Your task to perform on an android device: Go to wifi settings Image 0: 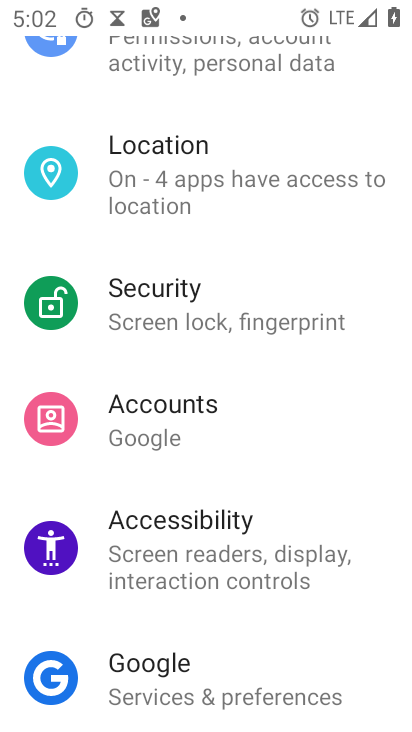
Step 0: drag from (310, 114) to (336, 666)
Your task to perform on an android device: Go to wifi settings Image 1: 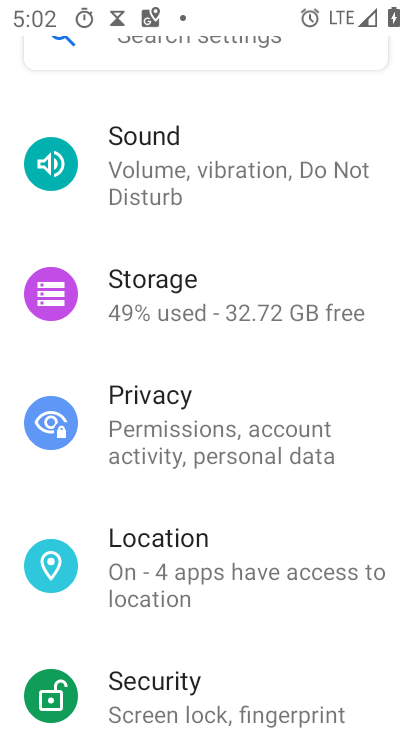
Step 1: drag from (302, 90) to (296, 522)
Your task to perform on an android device: Go to wifi settings Image 2: 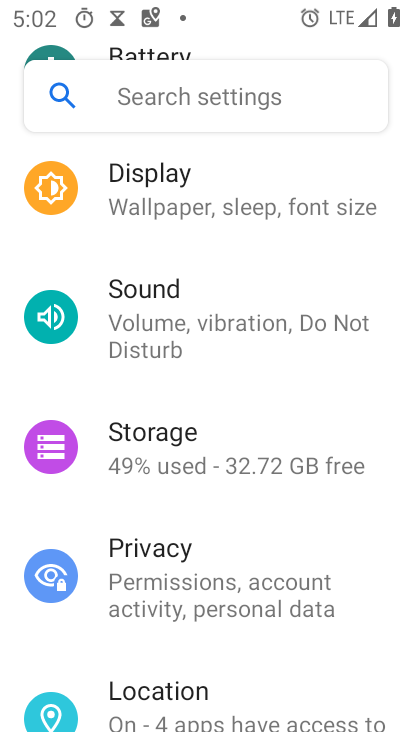
Step 2: drag from (247, 142) to (323, 699)
Your task to perform on an android device: Go to wifi settings Image 3: 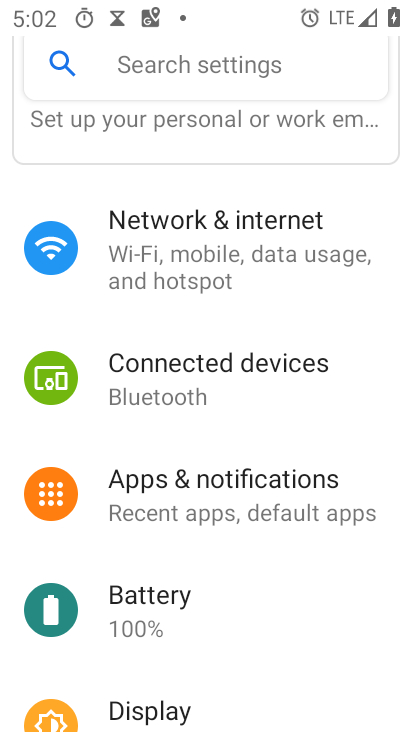
Step 3: click (275, 292)
Your task to perform on an android device: Go to wifi settings Image 4: 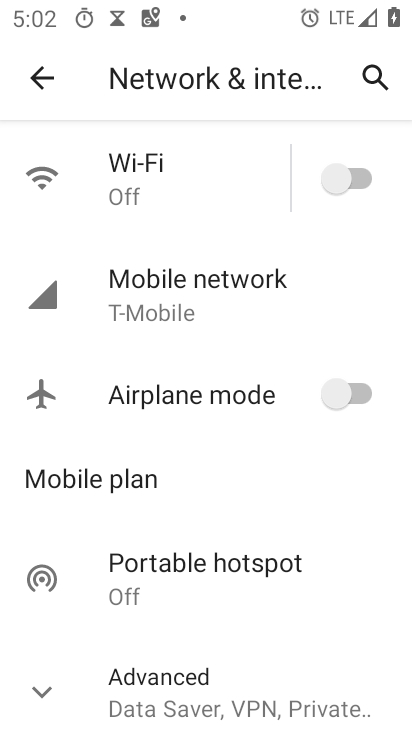
Step 4: click (216, 174)
Your task to perform on an android device: Go to wifi settings Image 5: 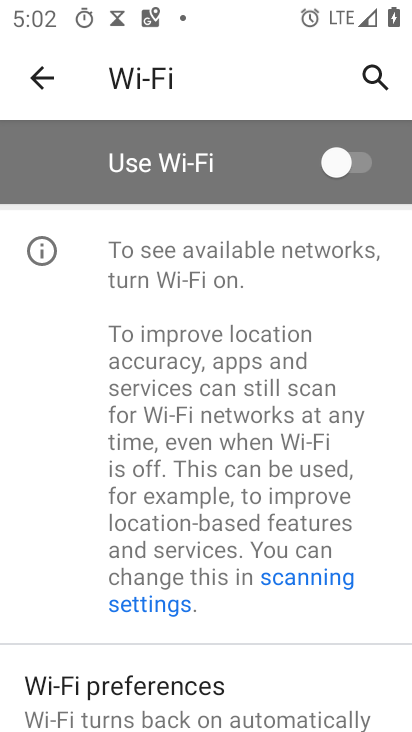
Step 5: task complete